Your task to perform on an android device: uninstall "Speedtest by Ookla" Image 0: 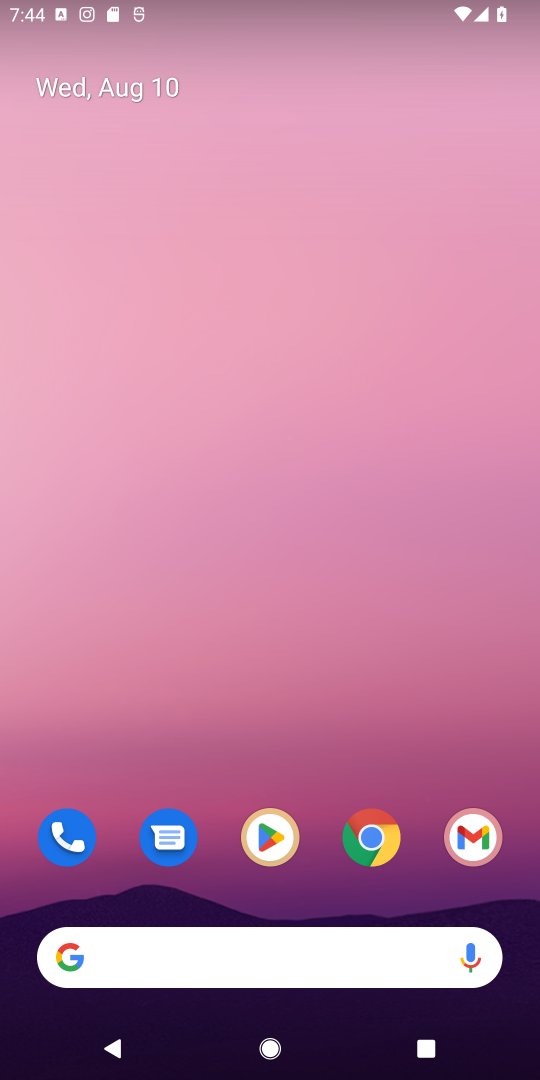
Step 0: click (269, 842)
Your task to perform on an android device: uninstall "Speedtest by Ookla" Image 1: 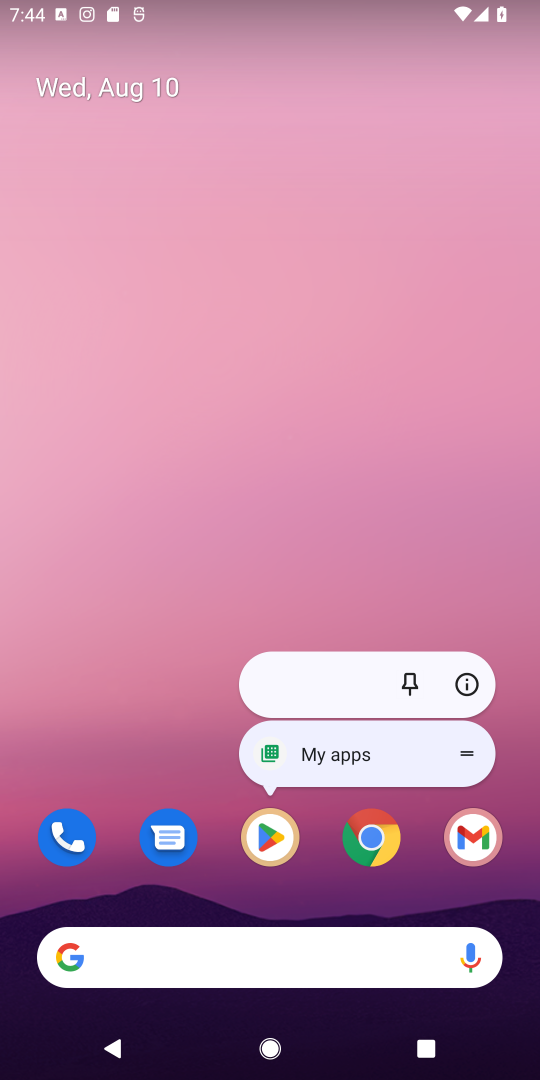
Step 1: click (271, 826)
Your task to perform on an android device: uninstall "Speedtest by Ookla" Image 2: 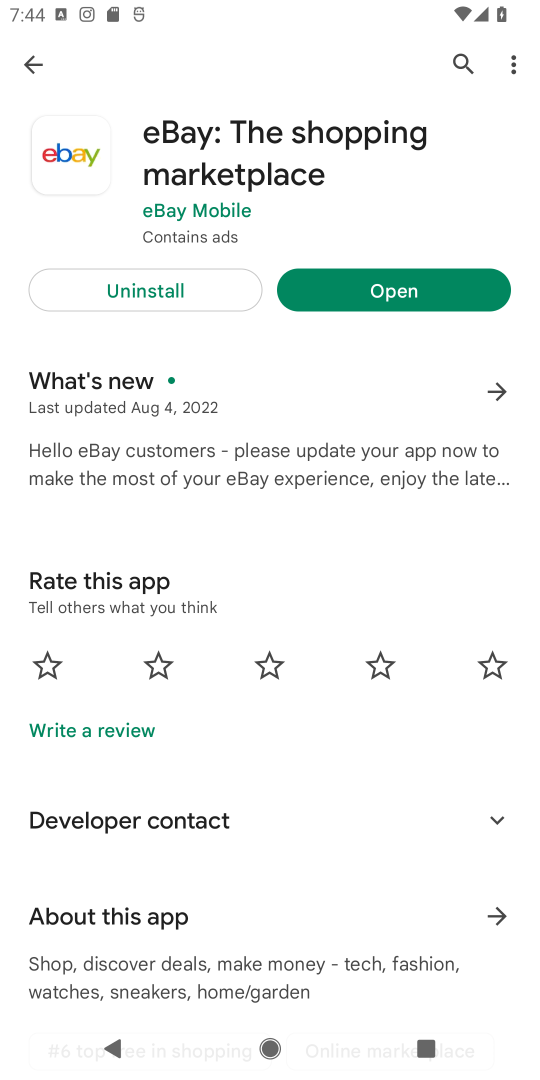
Step 2: click (459, 53)
Your task to perform on an android device: uninstall "Speedtest by Ookla" Image 3: 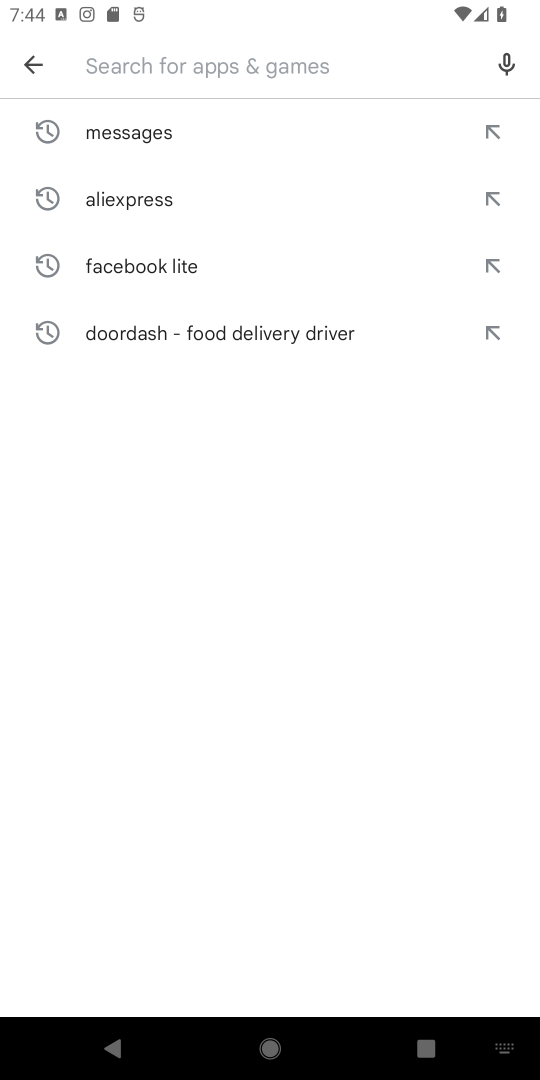
Step 3: type "Speedtest by Ookla"
Your task to perform on an android device: uninstall "Speedtest by Ookla" Image 4: 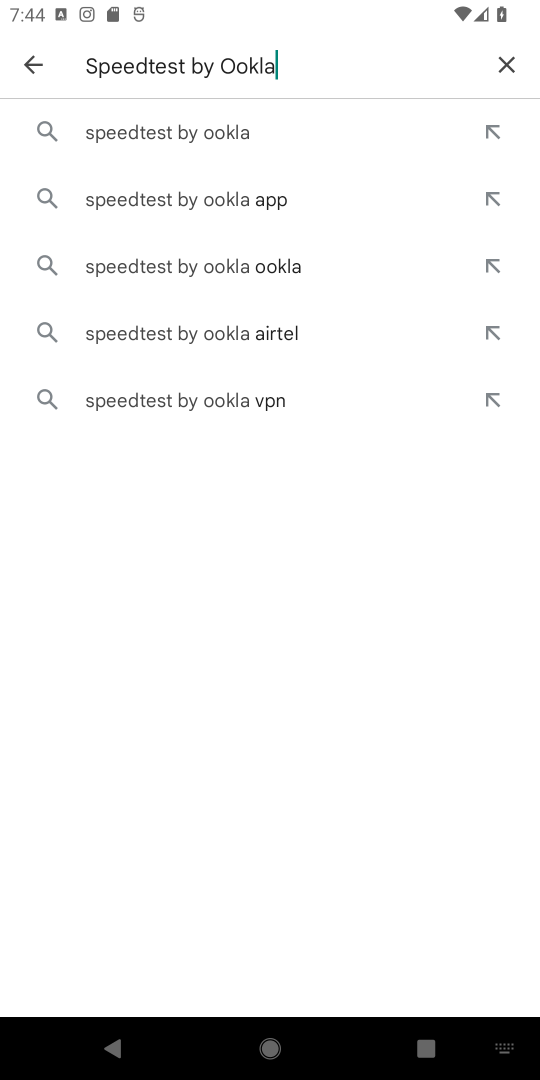
Step 4: click (208, 130)
Your task to perform on an android device: uninstall "Speedtest by Ookla" Image 5: 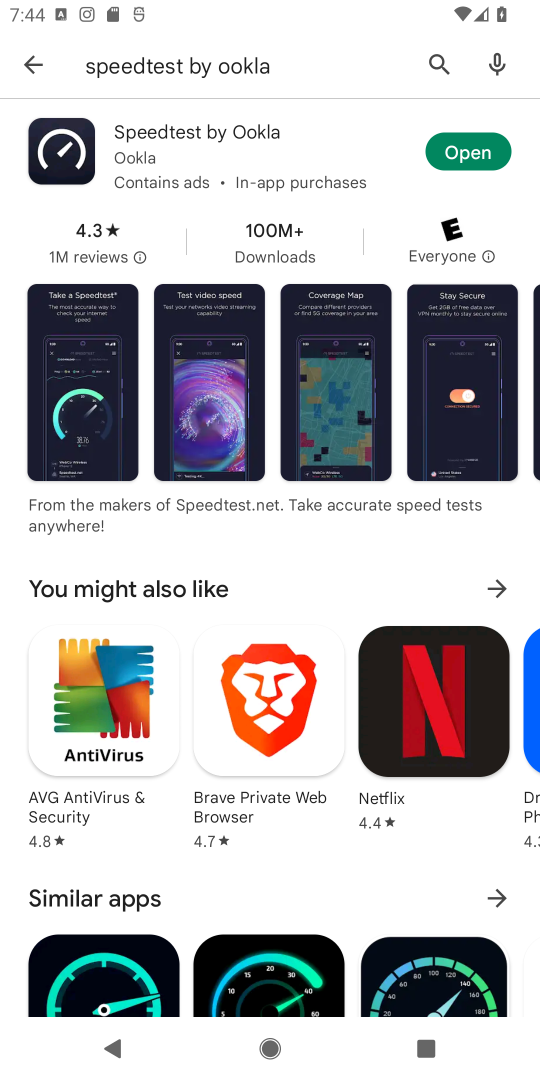
Step 5: click (136, 141)
Your task to perform on an android device: uninstall "Speedtest by Ookla" Image 6: 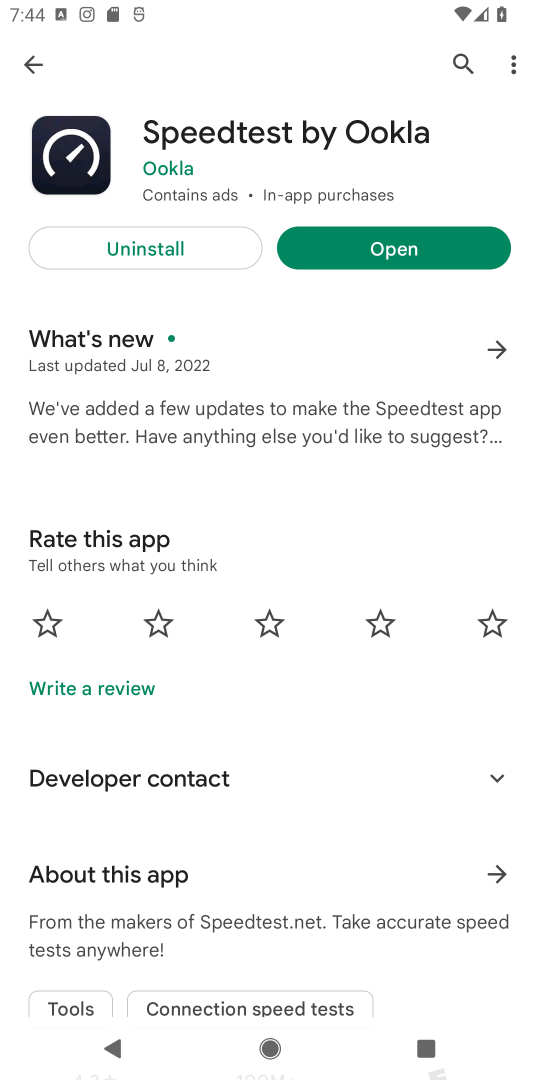
Step 6: click (198, 246)
Your task to perform on an android device: uninstall "Speedtest by Ookla" Image 7: 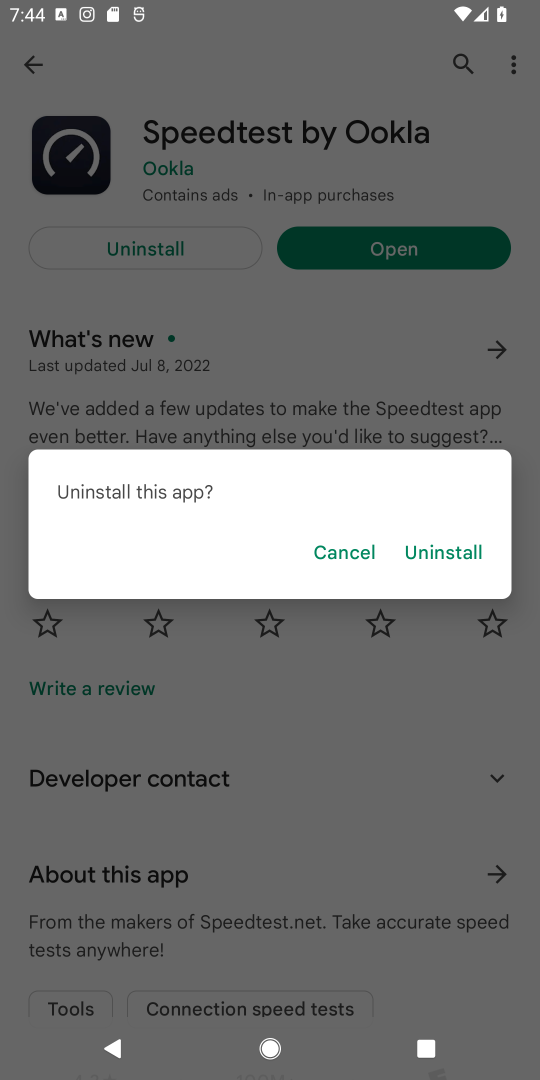
Step 7: click (458, 542)
Your task to perform on an android device: uninstall "Speedtest by Ookla" Image 8: 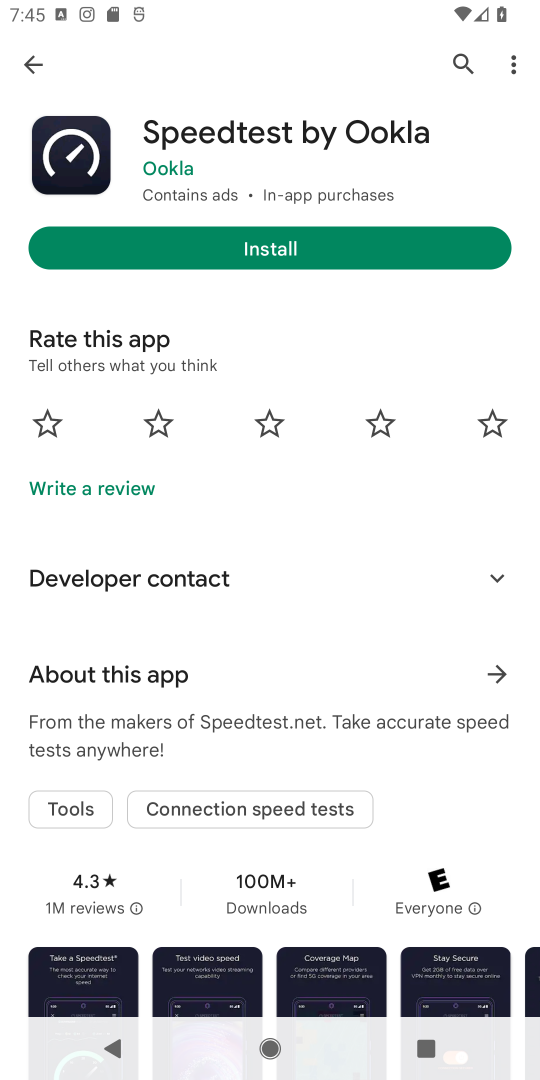
Step 8: task complete